Your task to perform on an android device: see tabs open on other devices in the chrome app Image 0: 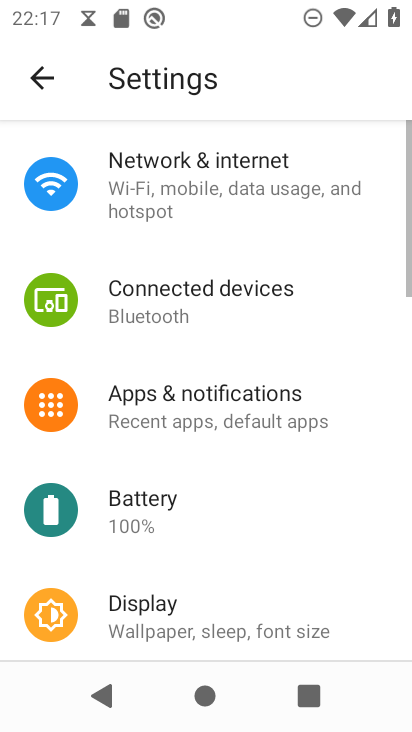
Step 0: press home button
Your task to perform on an android device: see tabs open on other devices in the chrome app Image 1: 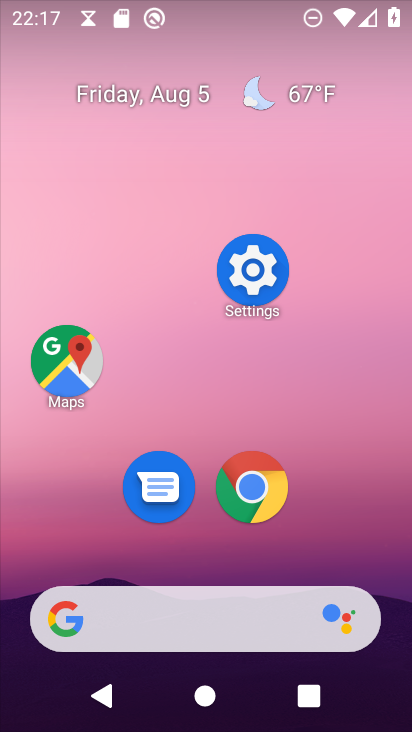
Step 1: click (253, 497)
Your task to perform on an android device: see tabs open on other devices in the chrome app Image 2: 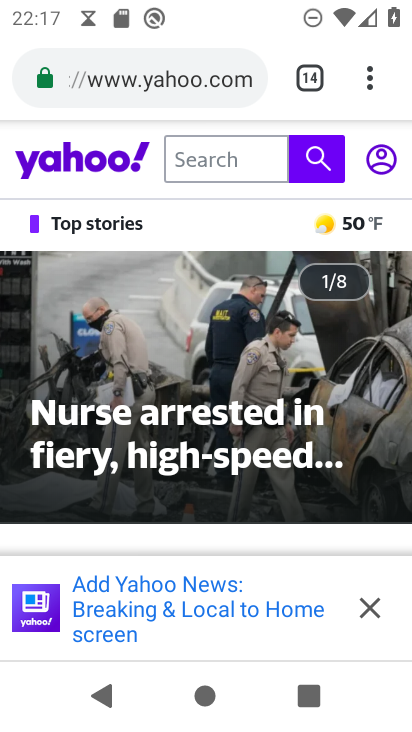
Step 2: task complete